Your task to perform on an android device: Is it going to rain today? Image 0: 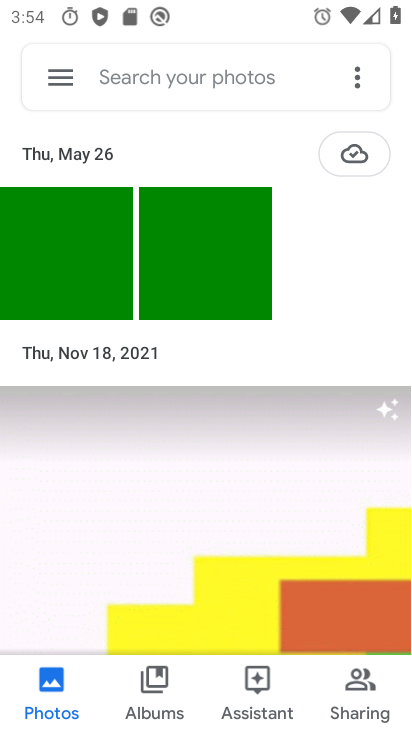
Step 0: press home button
Your task to perform on an android device: Is it going to rain today? Image 1: 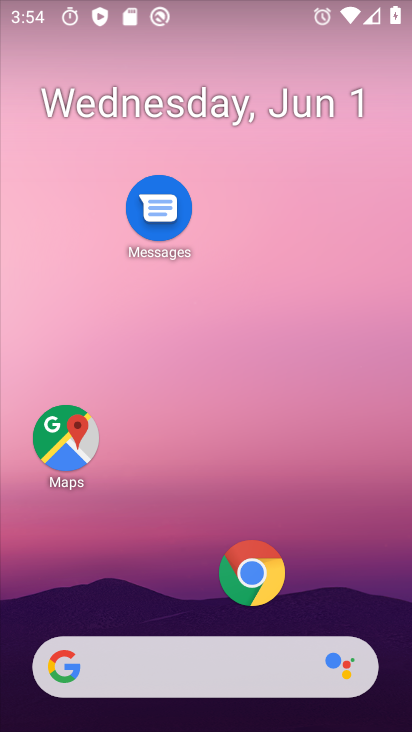
Step 1: drag from (174, 619) to (158, 158)
Your task to perform on an android device: Is it going to rain today? Image 2: 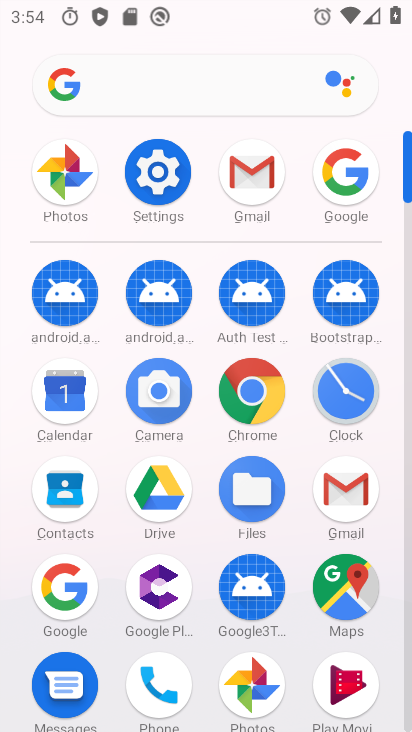
Step 2: click (321, 172)
Your task to perform on an android device: Is it going to rain today? Image 3: 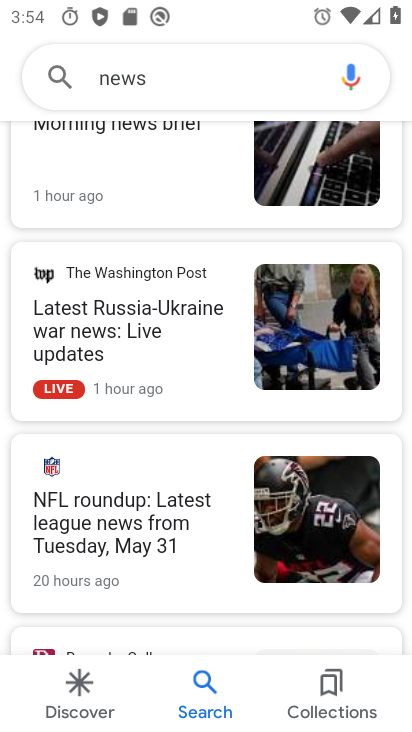
Step 3: task complete